Your task to perform on an android device: open chrome and create a bookmark for the current page Image 0: 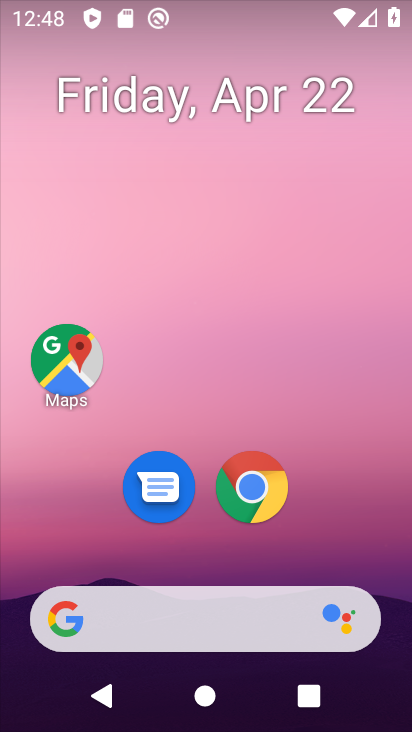
Step 0: click (259, 488)
Your task to perform on an android device: open chrome and create a bookmark for the current page Image 1: 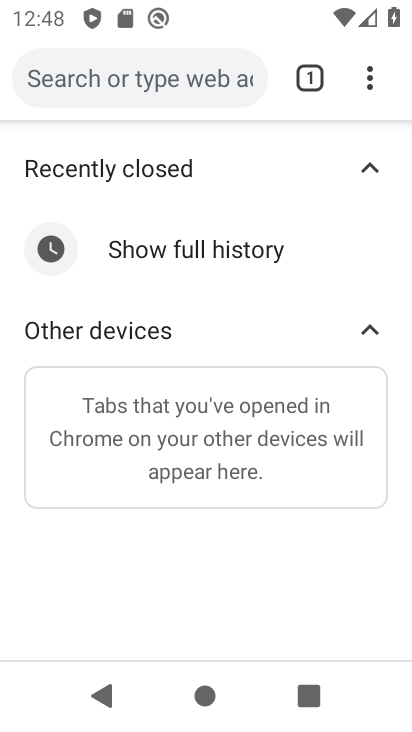
Step 1: click (235, 82)
Your task to perform on an android device: open chrome and create a bookmark for the current page Image 2: 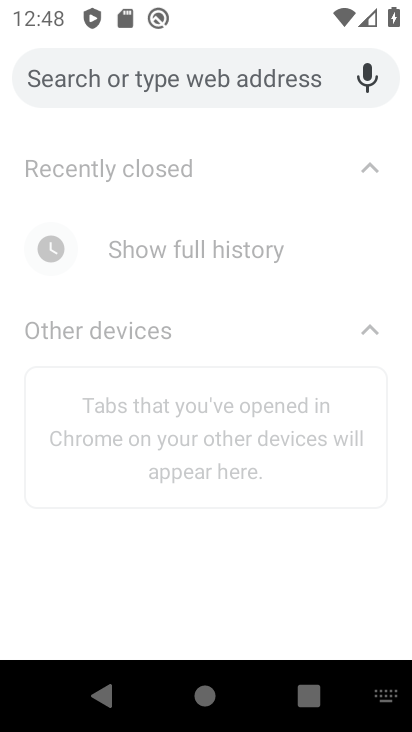
Step 2: type "nbhg"
Your task to perform on an android device: open chrome and create a bookmark for the current page Image 3: 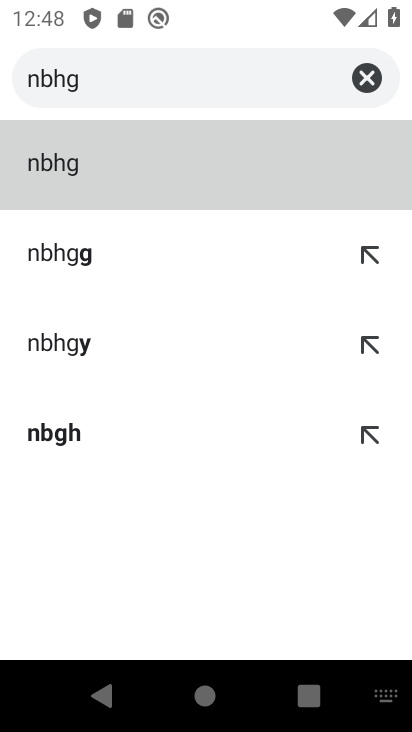
Step 3: click (79, 261)
Your task to perform on an android device: open chrome and create a bookmark for the current page Image 4: 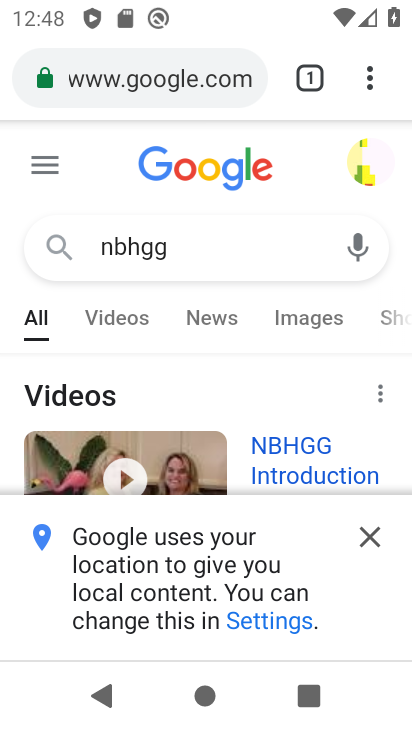
Step 4: drag from (209, 332) to (249, 87)
Your task to perform on an android device: open chrome and create a bookmark for the current page Image 5: 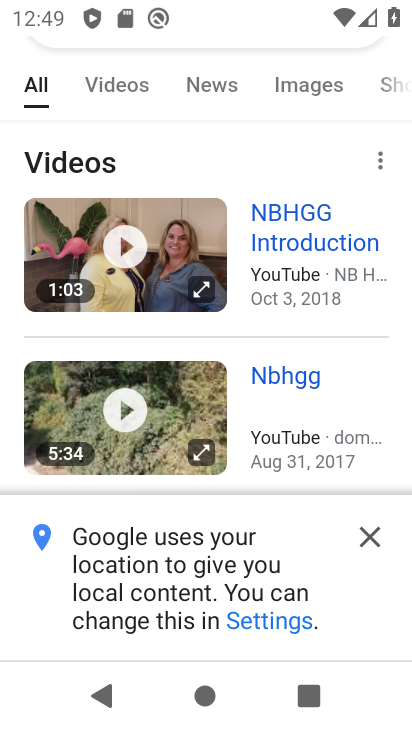
Step 5: click (361, 538)
Your task to perform on an android device: open chrome and create a bookmark for the current page Image 6: 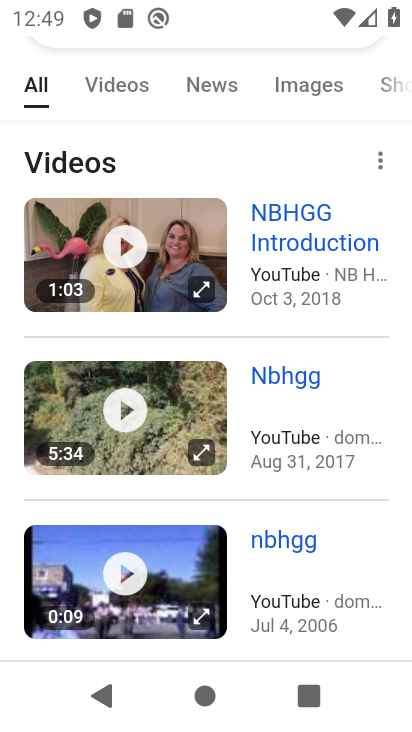
Step 6: drag from (224, 410) to (229, 286)
Your task to perform on an android device: open chrome and create a bookmark for the current page Image 7: 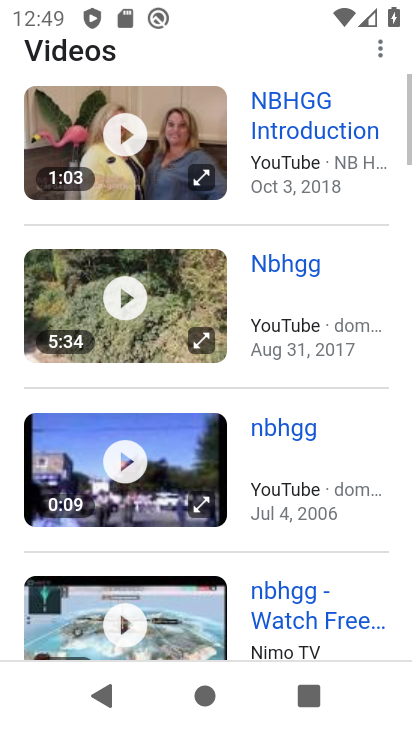
Step 7: drag from (234, 589) to (248, 326)
Your task to perform on an android device: open chrome and create a bookmark for the current page Image 8: 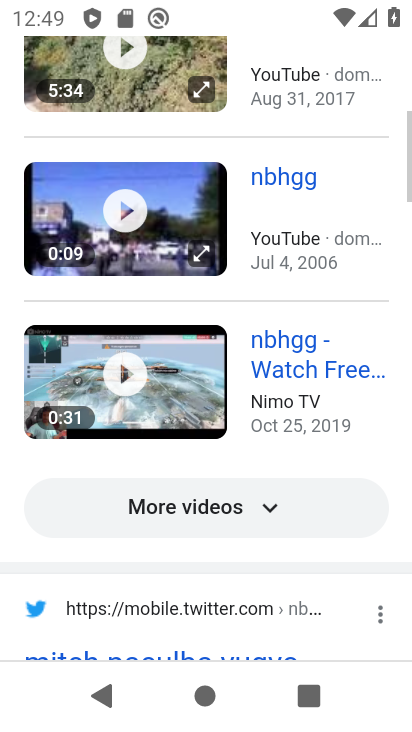
Step 8: drag from (264, 547) to (292, 340)
Your task to perform on an android device: open chrome and create a bookmark for the current page Image 9: 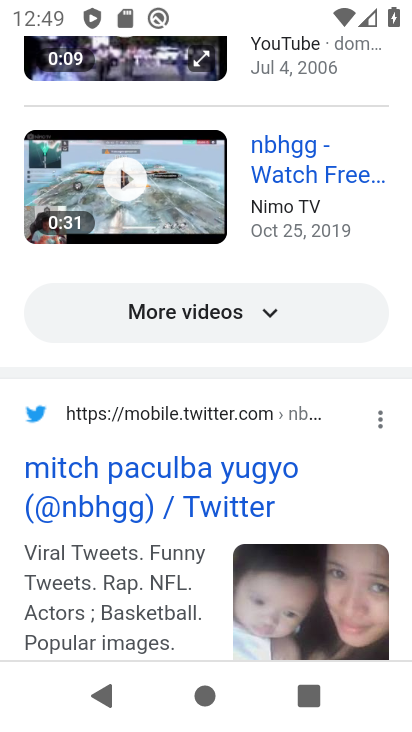
Step 9: drag from (236, 572) to (279, 331)
Your task to perform on an android device: open chrome and create a bookmark for the current page Image 10: 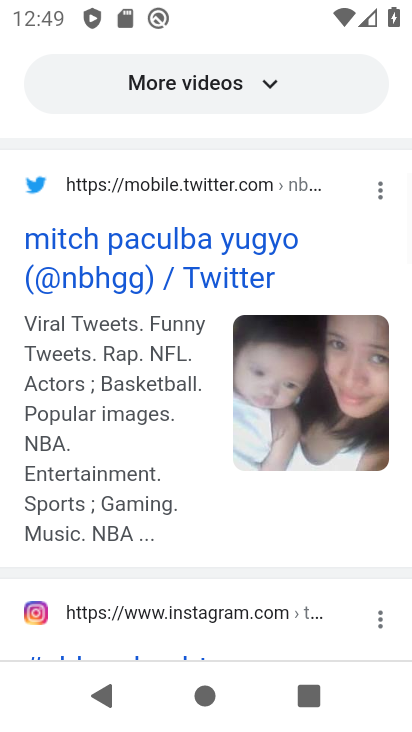
Step 10: drag from (260, 431) to (284, 267)
Your task to perform on an android device: open chrome and create a bookmark for the current page Image 11: 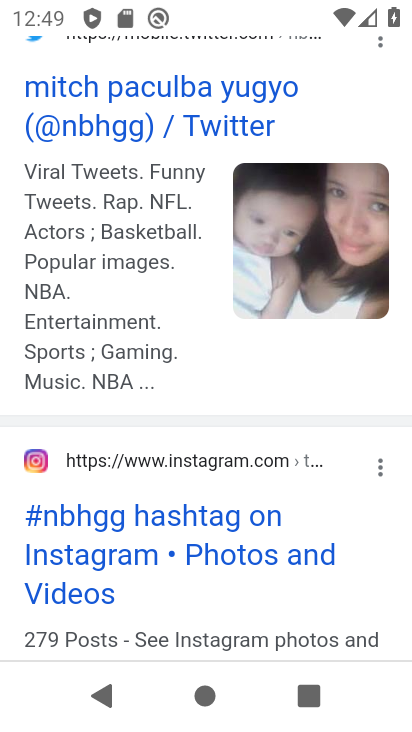
Step 11: click (170, 513)
Your task to perform on an android device: open chrome and create a bookmark for the current page Image 12: 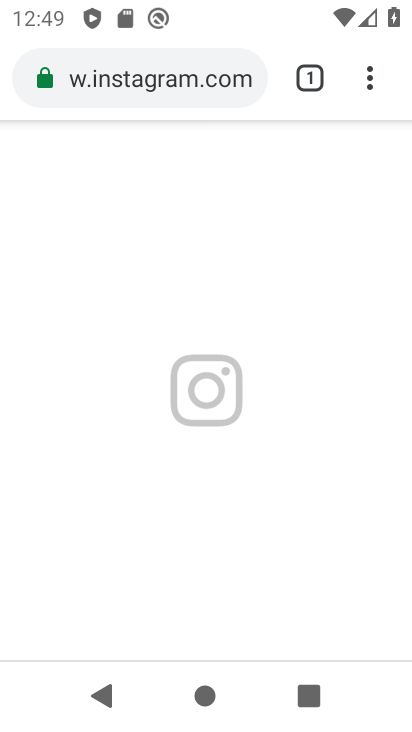
Step 12: click (367, 77)
Your task to perform on an android device: open chrome and create a bookmark for the current page Image 13: 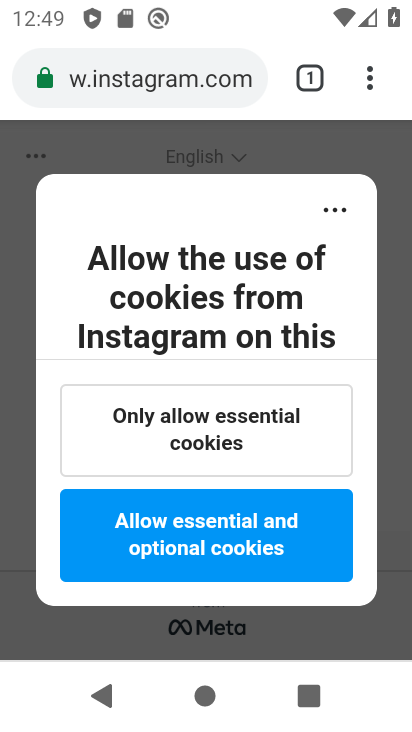
Step 13: task complete